Your task to perform on an android device: turn pop-ups off in chrome Image 0: 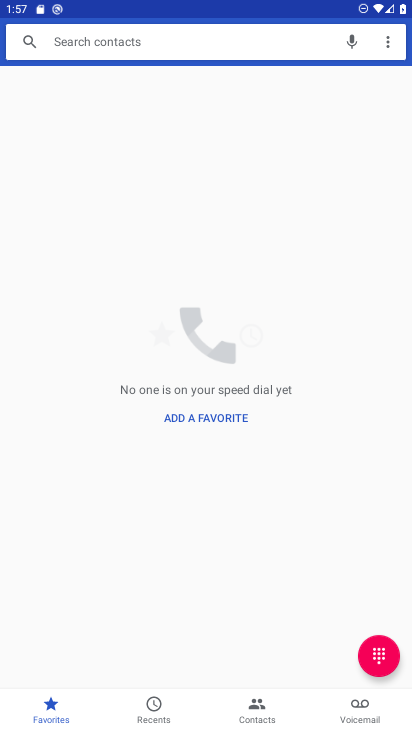
Step 0: press home button
Your task to perform on an android device: turn pop-ups off in chrome Image 1: 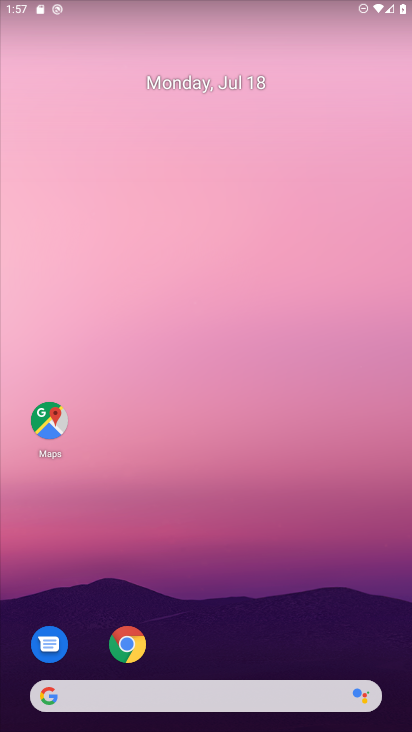
Step 1: click (309, 604)
Your task to perform on an android device: turn pop-ups off in chrome Image 2: 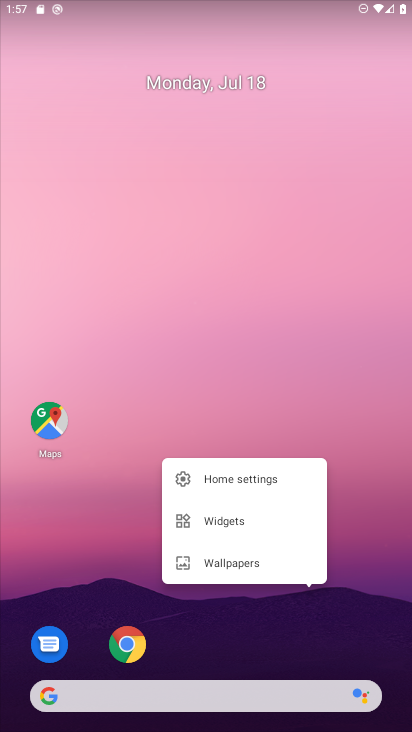
Step 2: click (244, 387)
Your task to perform on an android device: turn pop-ups off in chrome Image 3: 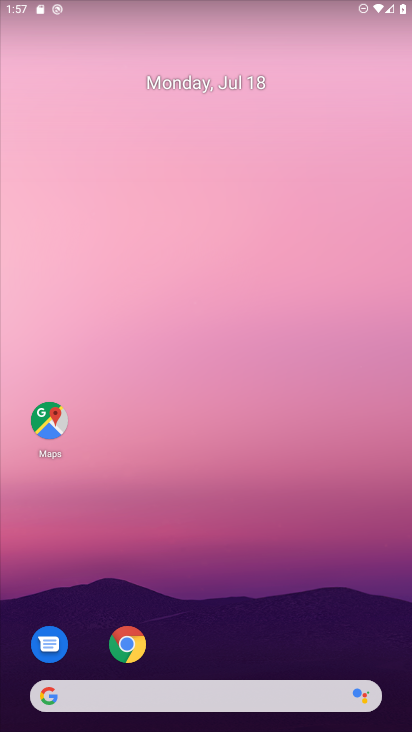
Step 3: click (137, 658)
Your task to perform on an android device: turn pop-ups off in chrome Image 4: 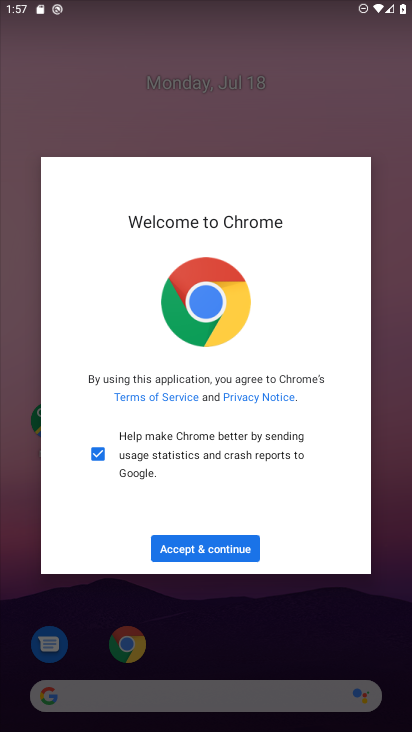
Step 4: click (216, 555)
Your task to perform on an android device: turn pop-ups off in chrome Image 5: 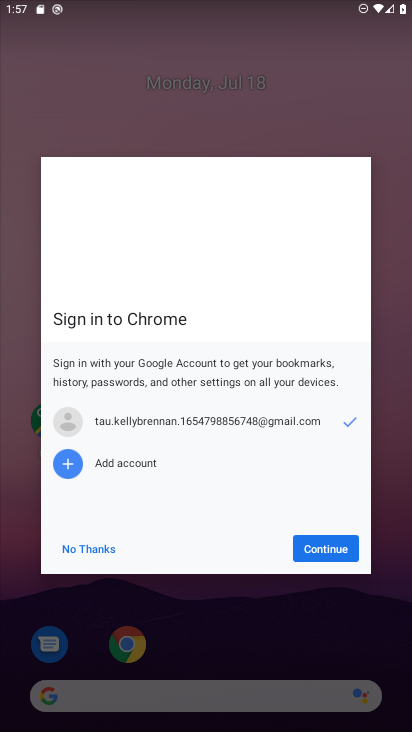
Step 5: click (313, 542)
Your task to perform on an android device: turn pop-ups off in chrome Image 6: 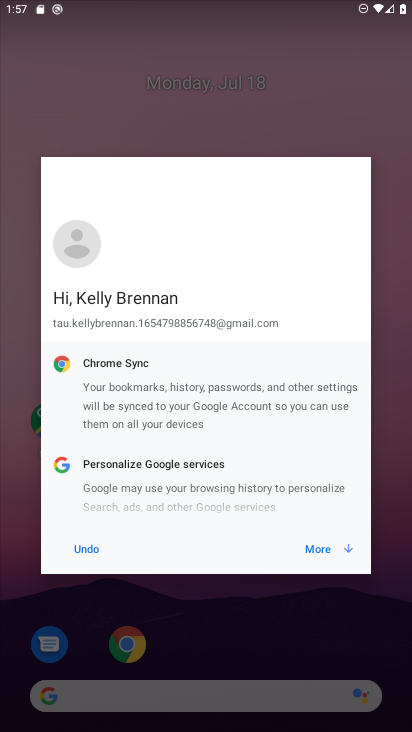
Step 6: click (333, 549)
Your task to perform on an android device: turn pop-ups off in chrome Image 7: 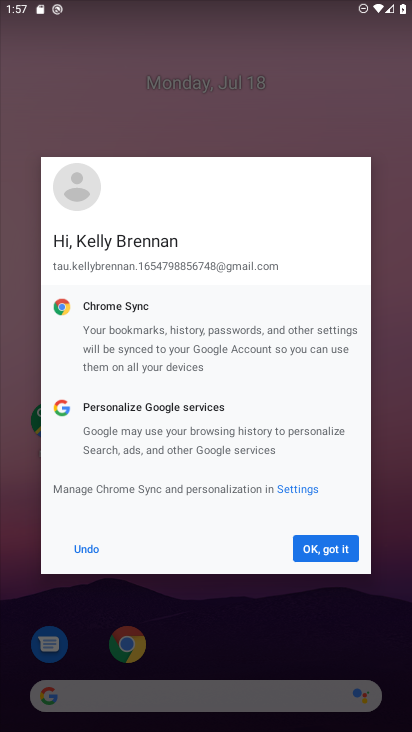
Step 7: click (333, 549)
Your task to perform on an android device: turn pop-ups off in chrome Image 8: 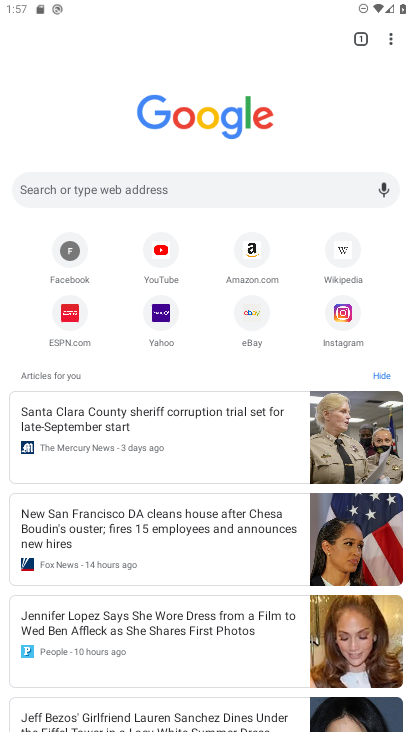
Step 8: click (391, 41)
Your task to perform on an android device: turn pop-ups off in chrome Image 9: 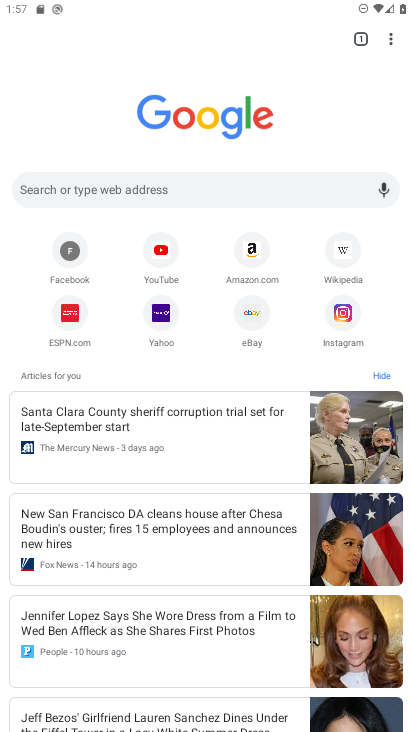
Step 9: click (391, 45)
Your task to perform on an android device: turn pop-ups off in chrome Image 10: 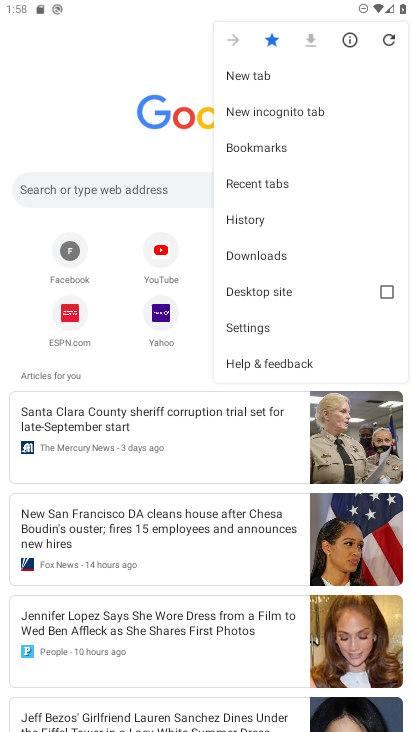
Step 10: click (255, 324)
Your task to perform on an android device: turn pop-ups off in chrome Image 11: 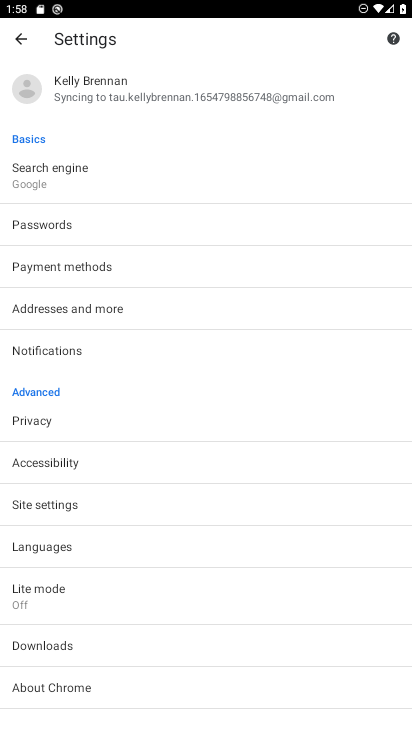
Step 11: click (58, 507)
Your task to perform on an android device: turn pop-ups off in chrome Image 12: 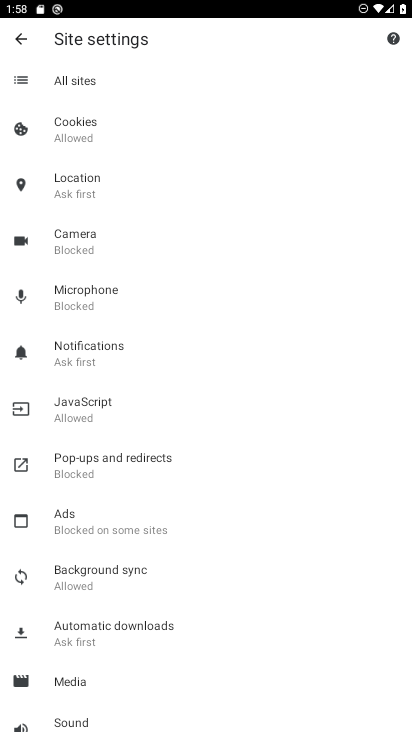
Step 12: click (107, 462)
Your task to perform on an android device: turn pop-ups off in chrome Image 13: 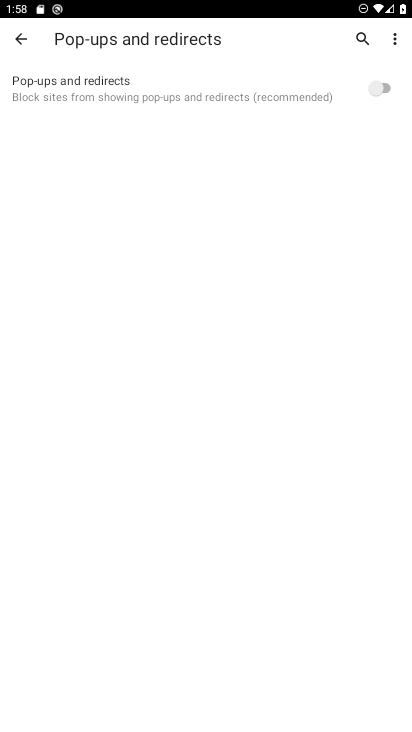
Step 13: task complete